Your task to perform on an android device: toggle improve location accuracy Image 0: 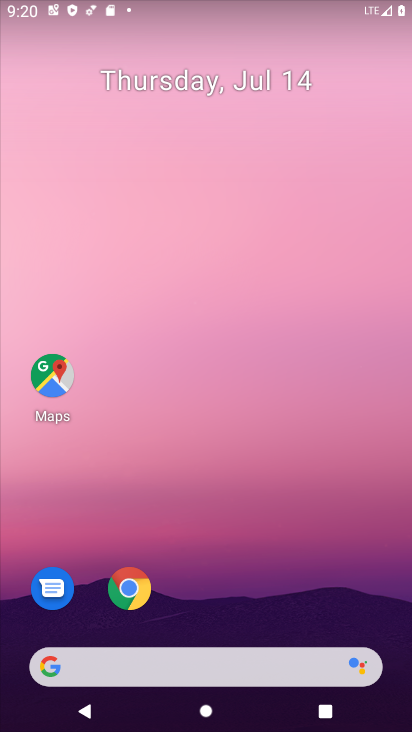
Step 0: drag from (390, 617) to (274, 32)
Your task to perform on an android device: toggle improve location accuracy Image 1: 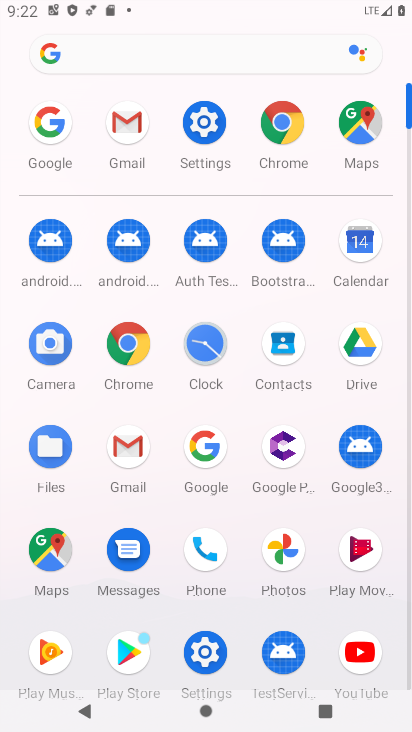
Step 1: click (210, 654)
Your task to perform on an android device: toggle improve location accuracy Image 2: 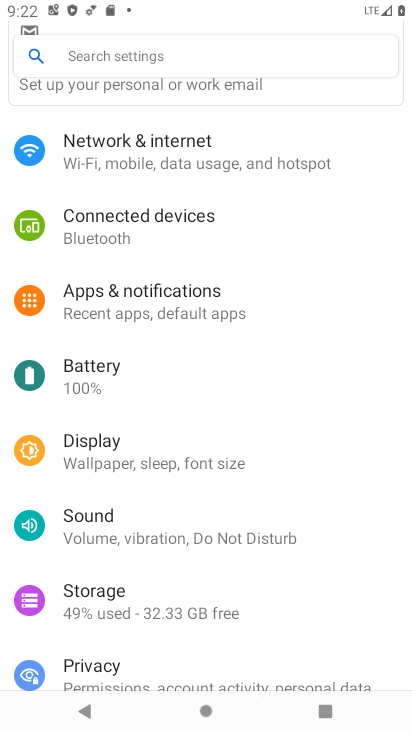
Step 2: drag from (133, 663) to (145, 310)
Your task to perform on an android device: toggle improve location accuracy Image 3: 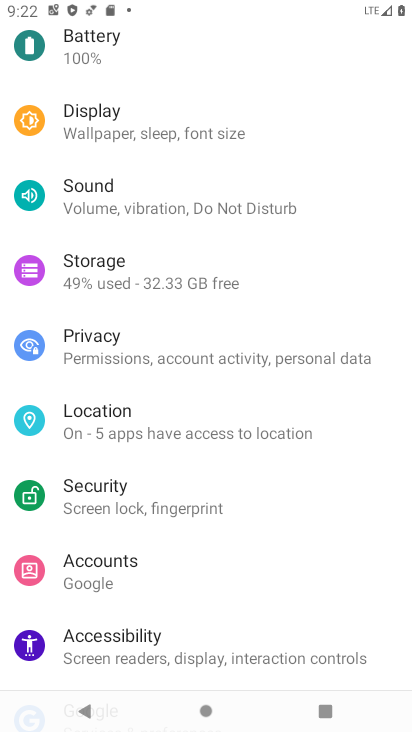
Step 3: click (108, 444)
Your task to perform on an android device: toggle improve location accuracy Image 4: 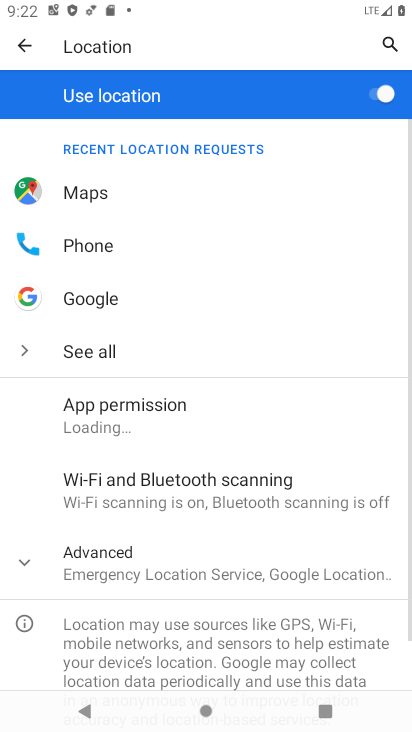
Step 4: click (148, 564)
Your task to perform on an android device: toggle improve location accuracy Image 5: 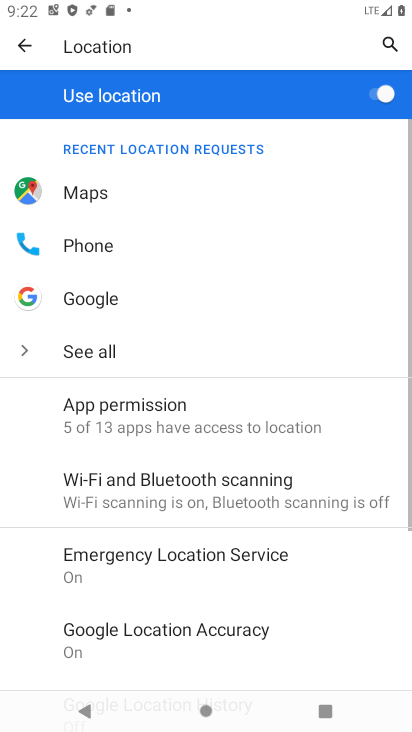
Step 5: click (92, 647)
Your task to perform on an android device: toggle improve location accuracy Image 6: 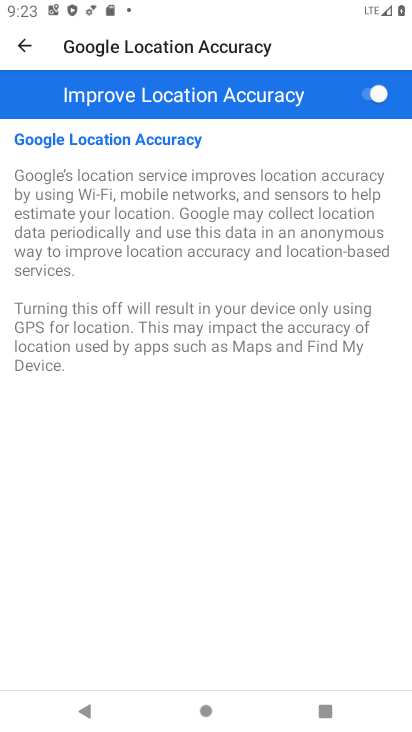
Step 6: click (390, 96)
Your task to perform on an android device: toggle improve location accuracy Image 7: 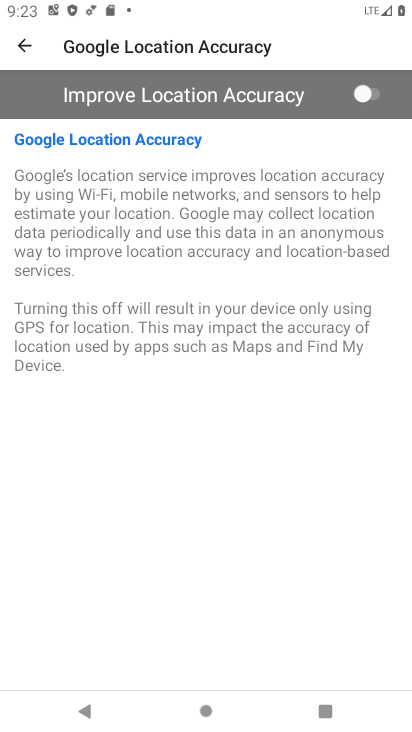
Step 7: task complete